Your task to perform on an android device: Open Wikipedia Image 0: 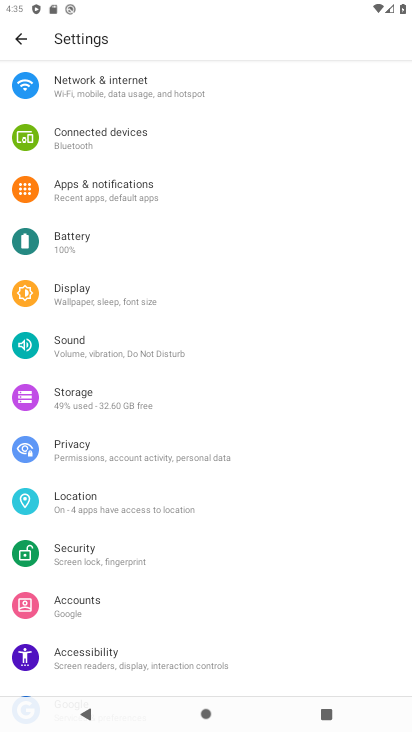
Step 0: press home button
Your task to perform on an android device: Open Wikipedia Image 1: 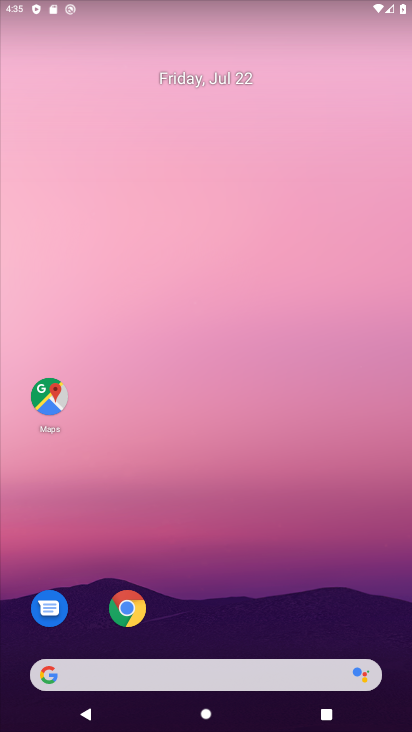
Step 1: click (122, 601)
Your task to perform on an android device: Open Wikipedia Image 2: 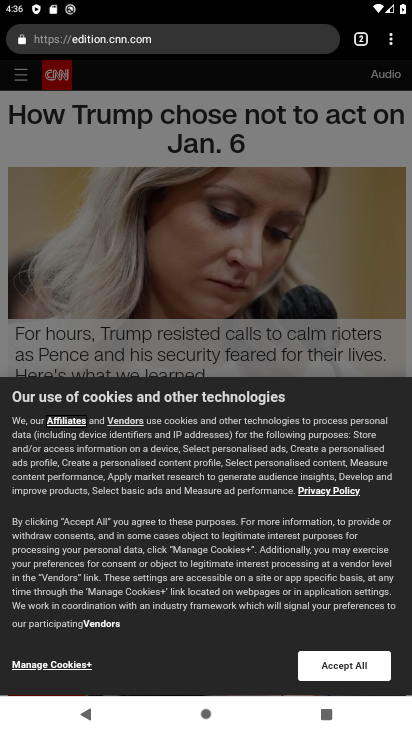
Step 2: click (364, 50)
Your task to perform on an android device: Open Wikipedia Image 3: 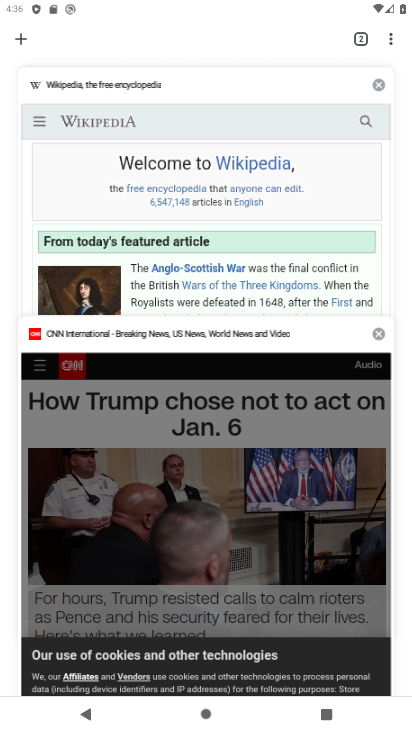
Step 3: click (202, 172)
Your task to perform on an android device: Open Wikipedia Image 4: 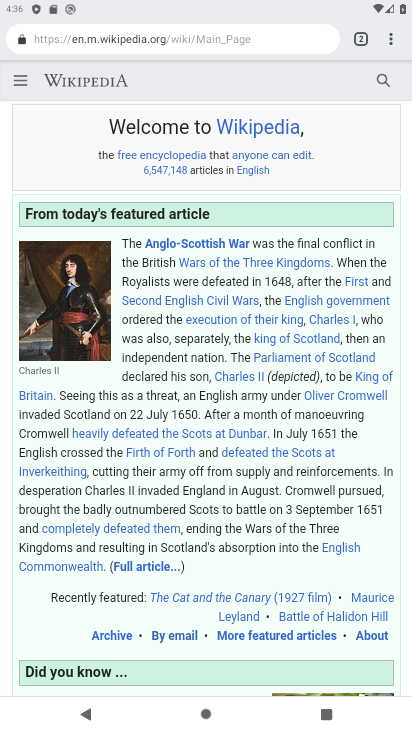
Step 4: task complete